Your task to perform on an android device: Open network settings Image 0: 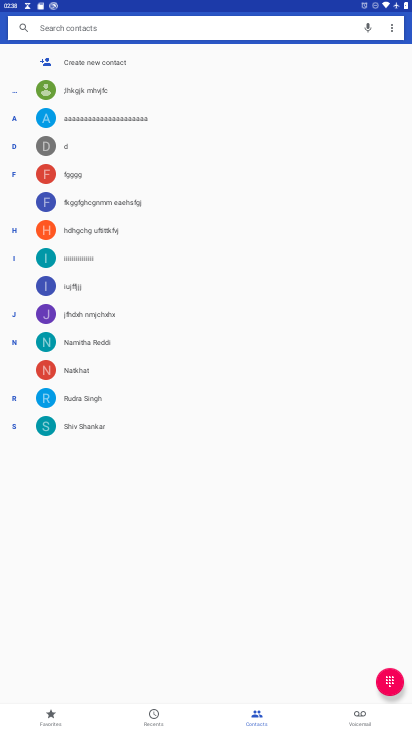
Step 0: press home button
Your task to perform on an android device: Open network settings Image 1: 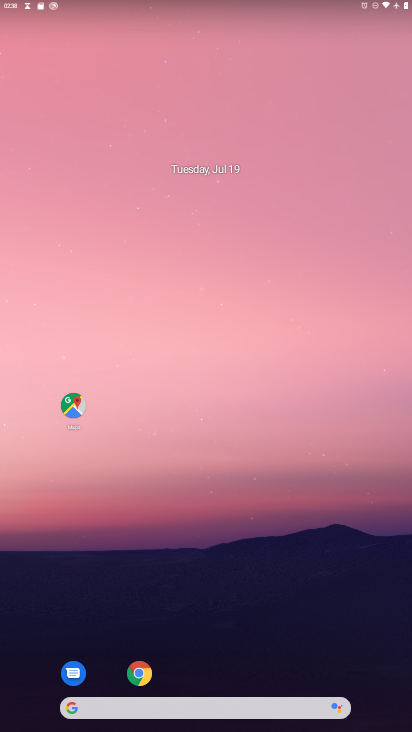
Step 1: click (191, 383)
Your task to perform on an android device: Open network settings Image 2: 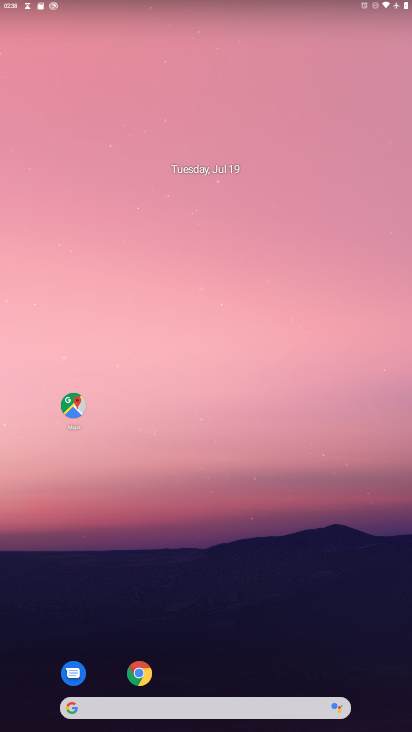
Step 2: drag from (189, 535) to (196, 282)
Your task to perform on an android device: Open network settings Image 3: 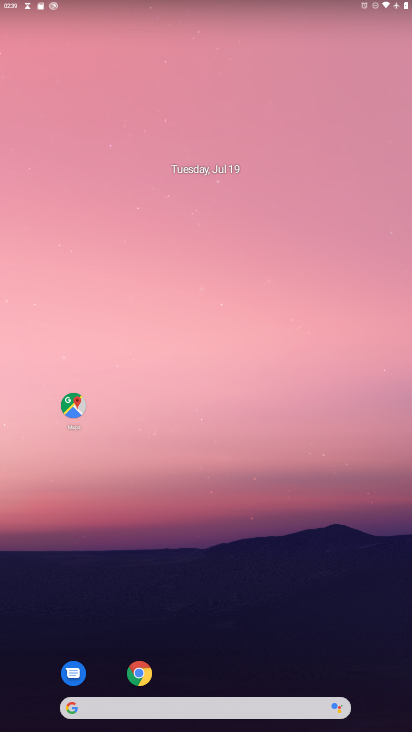
Step 3: drag from (218, 640) to (242, 336)
Your task to perform on an android device: Open network settings Image 4: 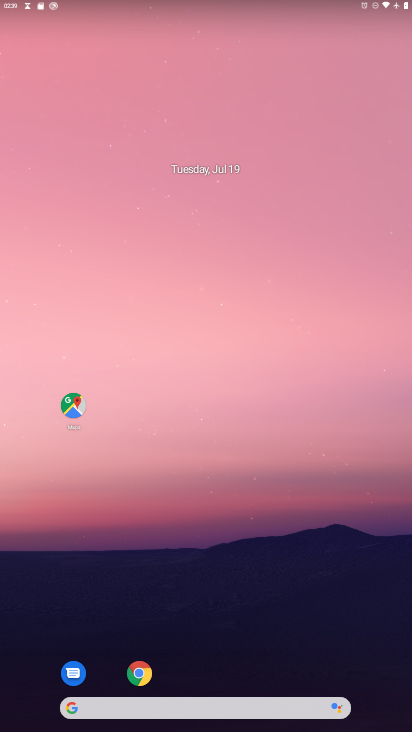
Step 4: drag from (246, 643) to (249, 216)
Your task to perform on an android device: Open network settings Image 5: 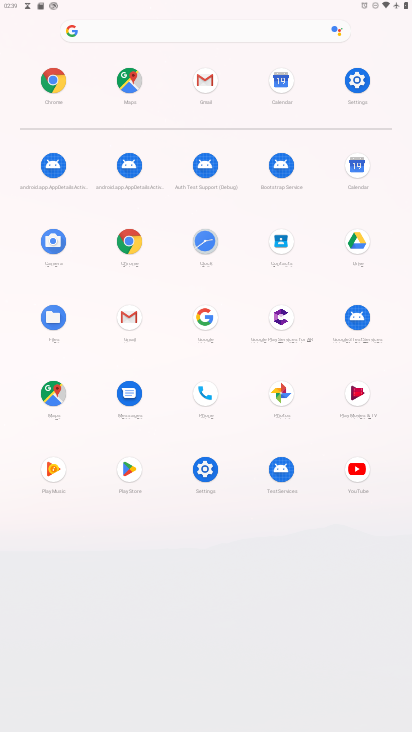
Step 5: click (347, 72)
Your task to perform on an android device: Open network settings Image 6: 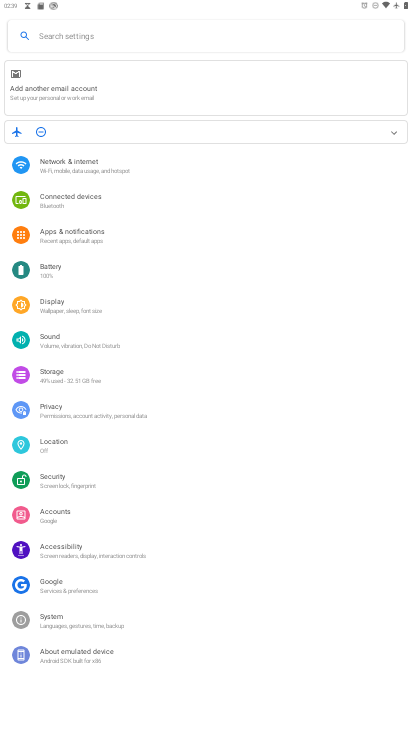
Step 6: click (75, 162)
Your task to perform on an android device: Open network settings Image 7: 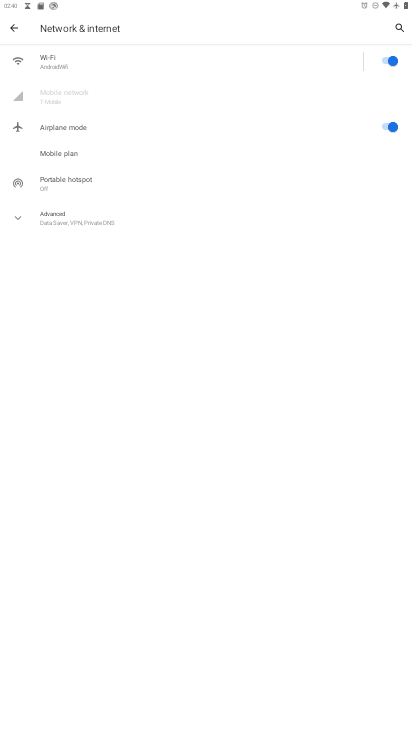
Step 7: task complete